Your task to perform on an android device: see tabs open on other devices in the chrome app Image 0: 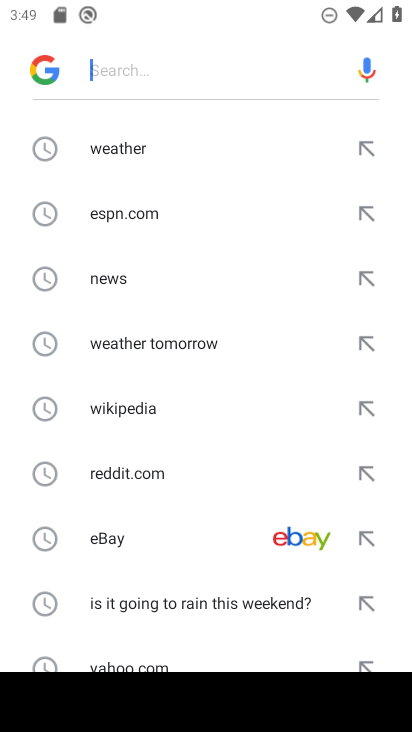
Step 0: press home button
Your task to perform on an android device: see tabs open on other devices in the chrome app Image 1: 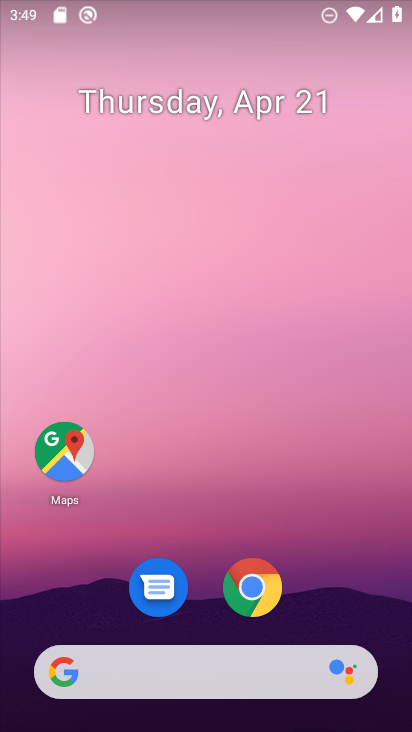
Step 1: click (254, 591)
Your task to perform on an android device: see tabs open on other devices in the chrome app Image 2: 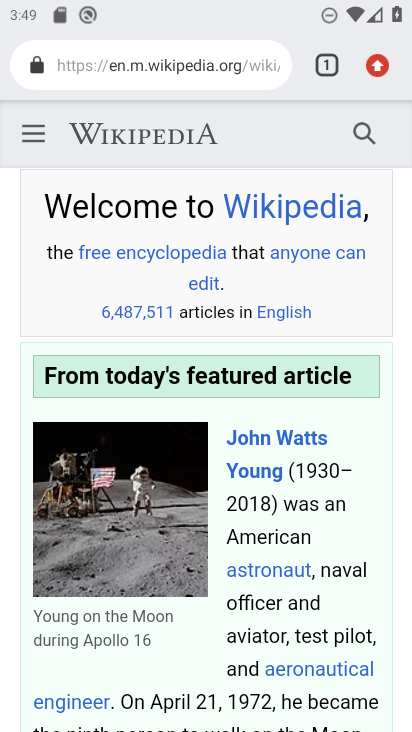
Step 2: click (375, 62)
Your task to perform on an android device: see tabs open on other devices in the chrome app Image 3: 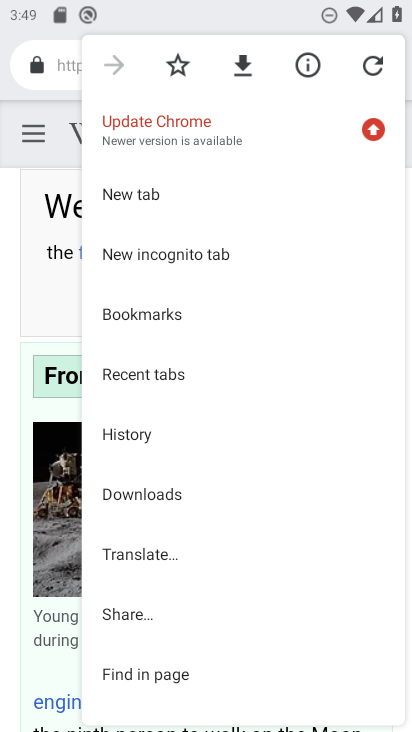
Step 3: click (143, 367)
Your task to perform on an android device: see tabs open on other devices in the chrome app Image 4: 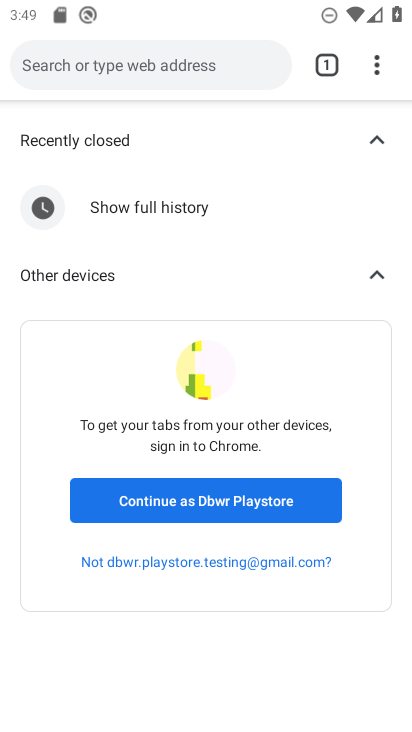
Step 4: click (179, 496)
Your task to perform on an android device: see tabs open on other devices in the chrome app Image 5: 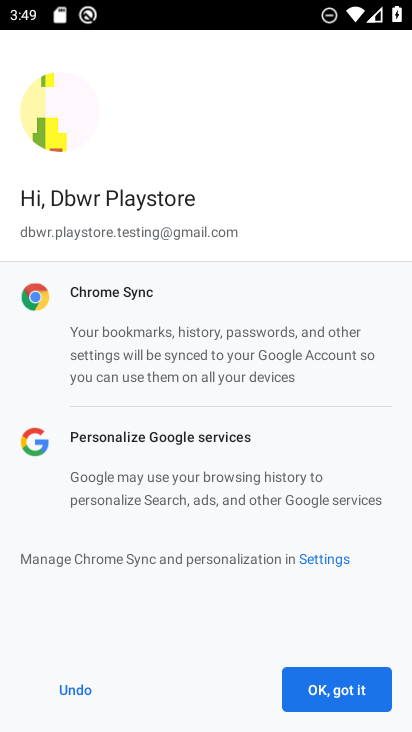
Step 5: click (297, 670)
Your task to perform on an android device: see tabs open on other devices in the chrome app Image 6: 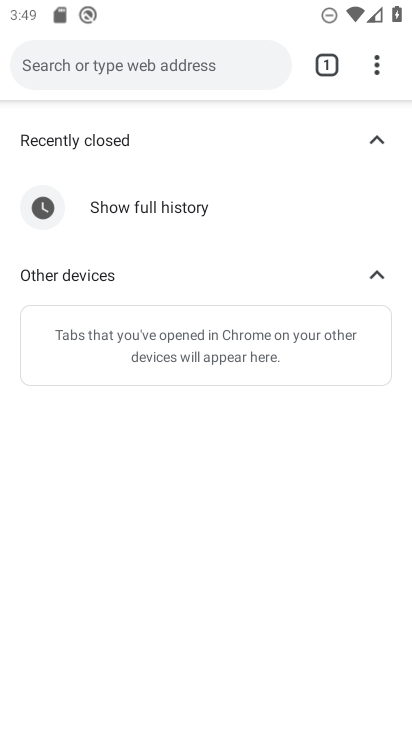
Step 6: task complete